Your task to perform on an android device: Clear the shopping cart on costco. Image 0: 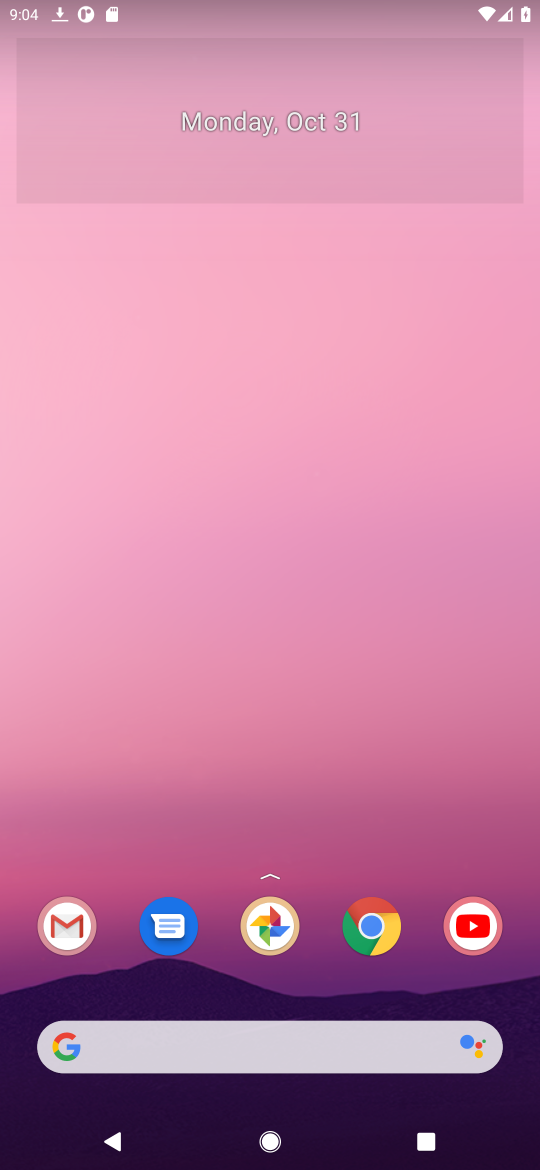
Step 0: click (376, 947)
Your task to perform on an android device: Clear the shopping cart on costco. Image 1: 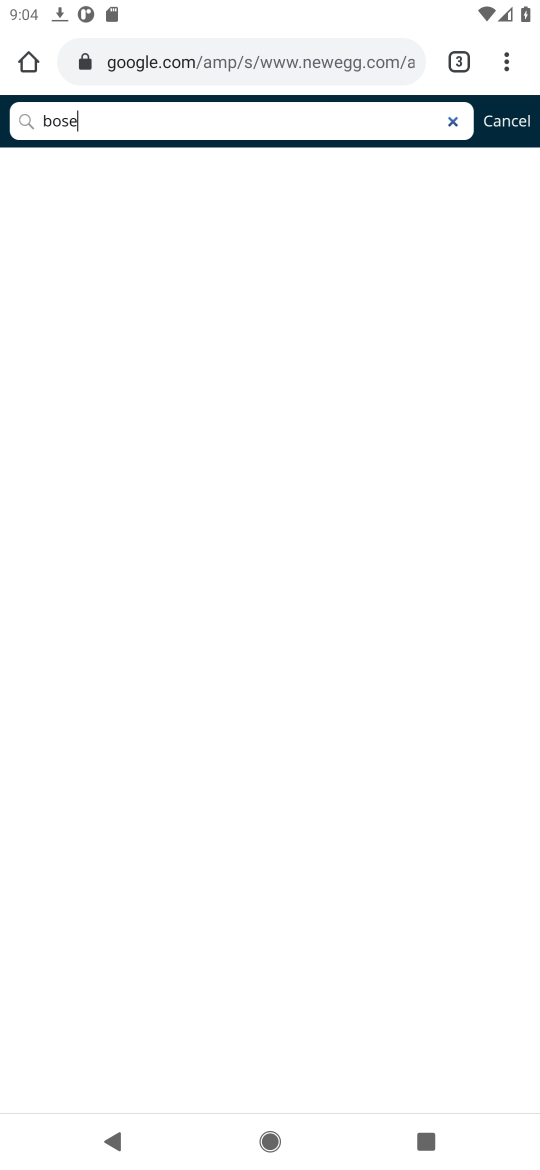
Step 1: click (455, 57)
Your task to perform on an android device: Clear the shopping cart on costco. Image 2: 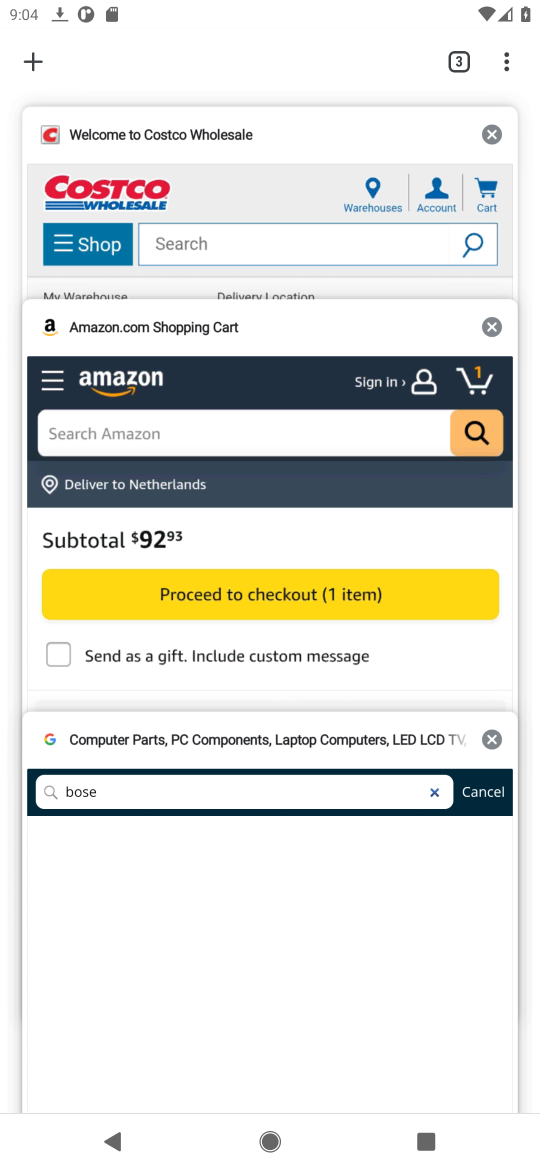
Step 2: click (283, 209)
Your task to perform on an android device: Clear the shopping cart on costco. Image 3: 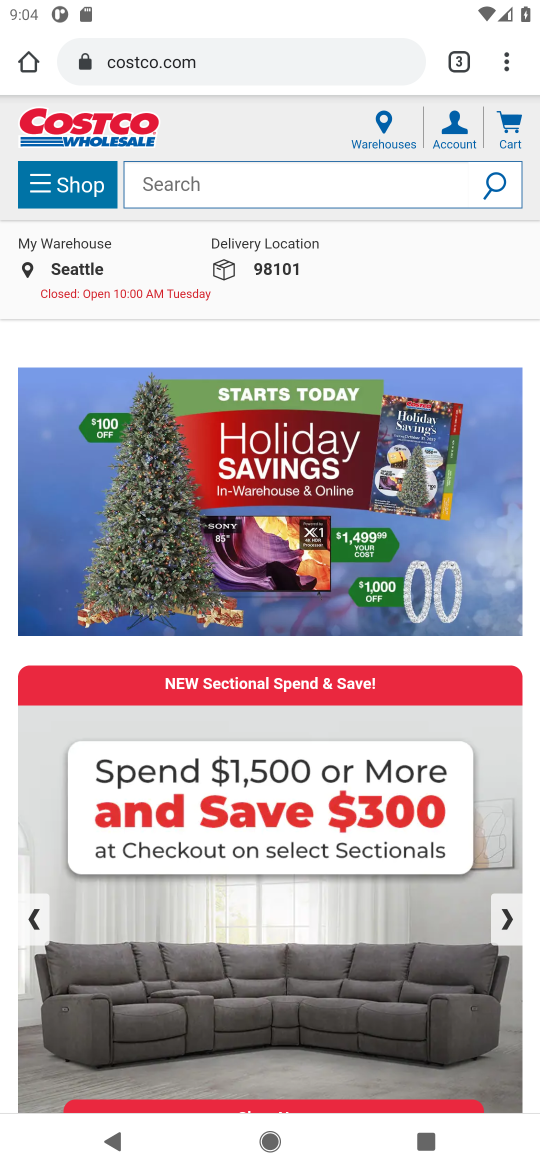
Step 3: click (514, 123)
Your task to perform on an android device: Clear the shopping cart on costco. Image 4: 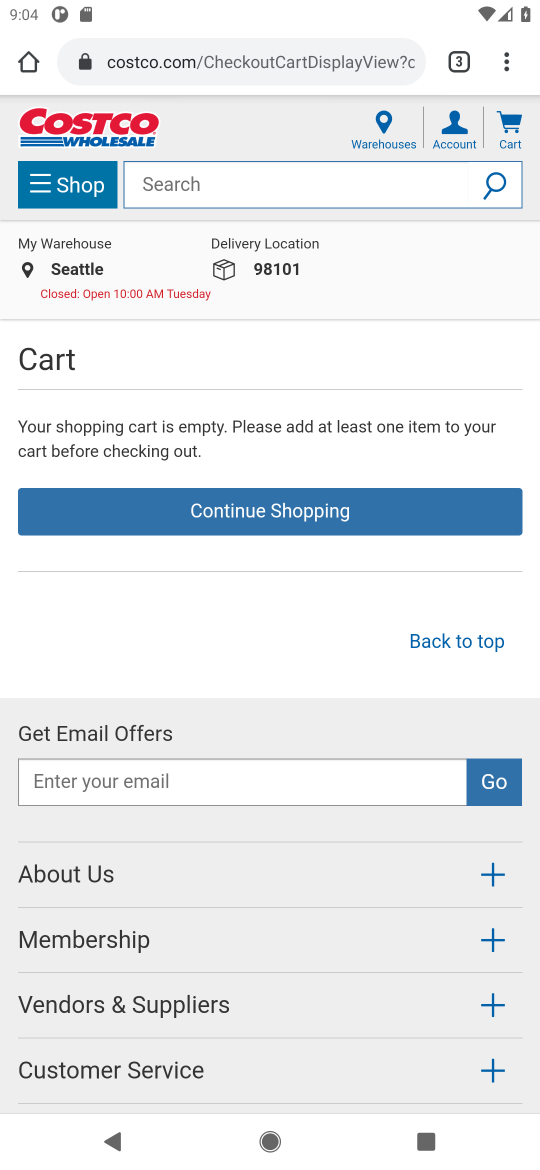
Step 4: task complete